Your task to perform on an android device: Open Google Chrome and open the bookmarks view Image 0: 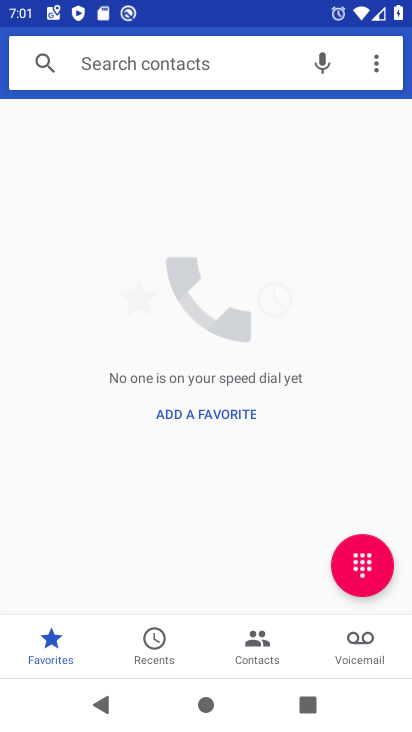
Step 0: press home button
Your task to perform on an android device: Open Google Chrome and open the bookmarks view Image 1: 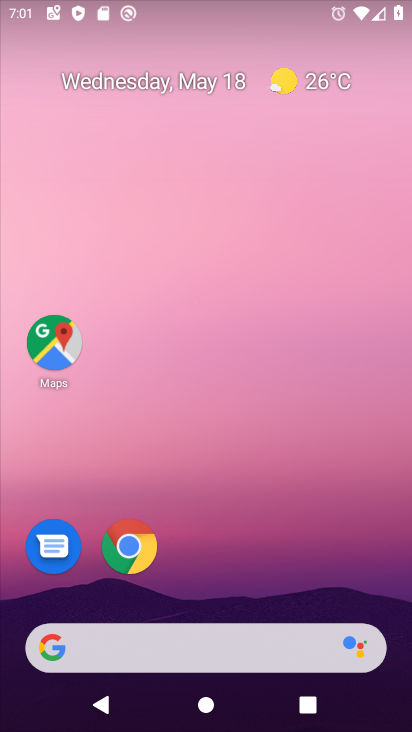
Step 1: drag from (394, 648) to (270, 122)
Your task to perform on an android device: Open Google Chrome and open the bookmarks view Image 2: 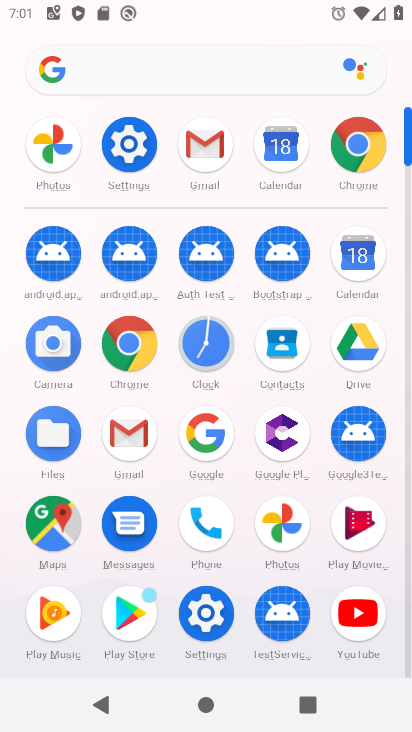
Step 2: click (367, 151)
Your task to perform on an android device: Open Google Chrome and open the bookmarks view Image 3: 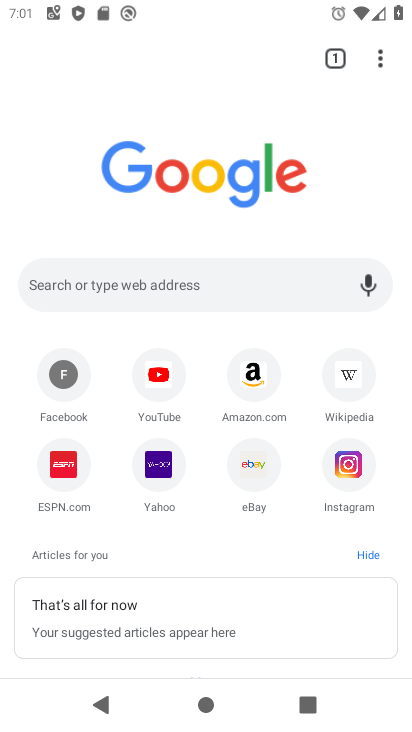
Step 3: click (387, 55)
Your task to perform on an android device: Open Google Chrome and open the bookmarks view Image 4: 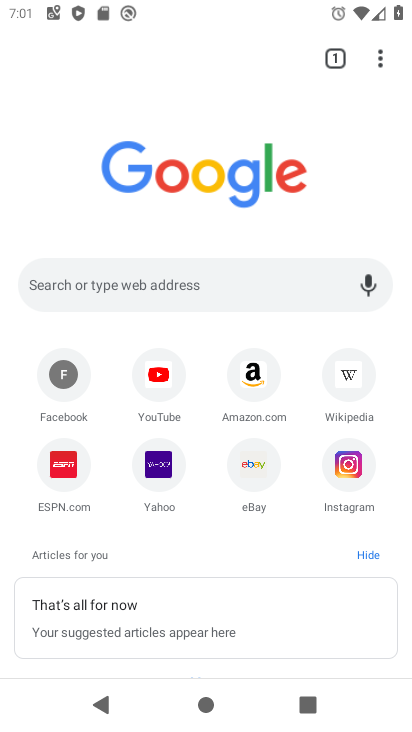
Step 4: click (377, 53)
Your task to perform on an android device: Open Google Chrome and open the bookmarks view Image 5: 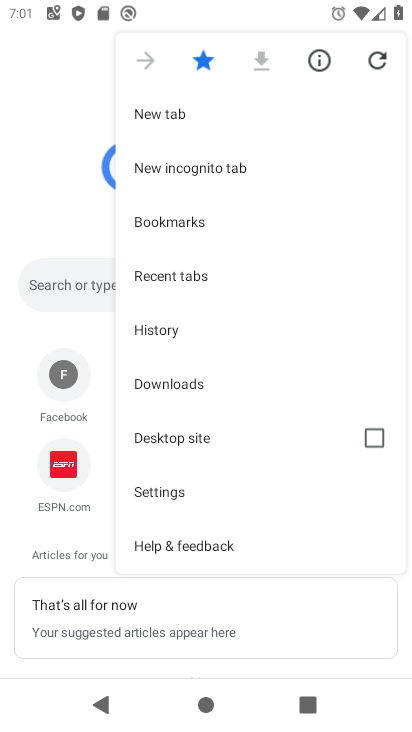
Step 5: click (216, 218)
Your task to perform on an android device: Open Google Chrome and open the bookmarks view Image 6: 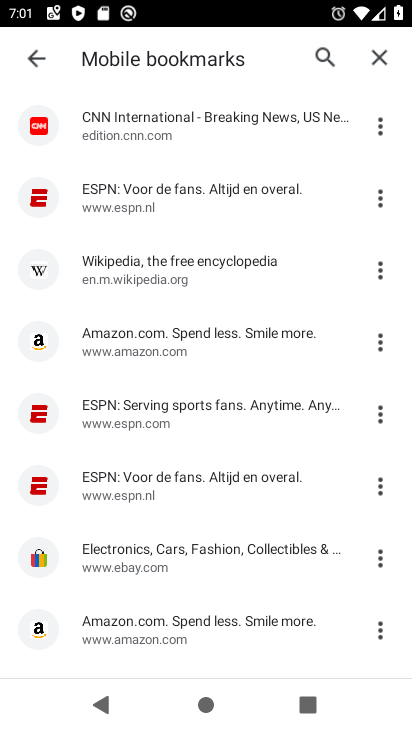
Step 6: task complete